Your task to perform on an android device: toggle improve location accuracy Image 0: 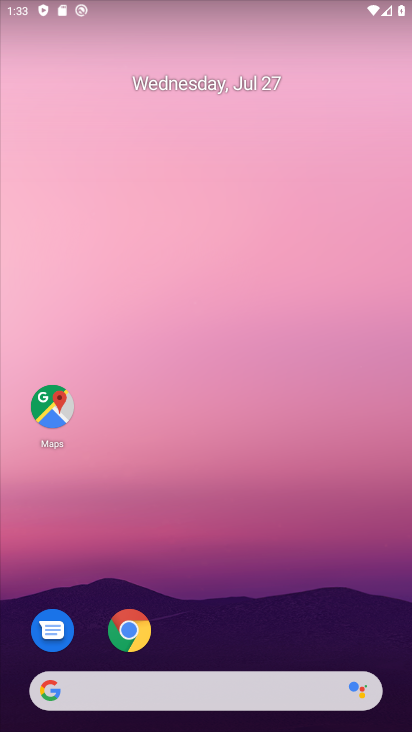
Step 0: drag from (384, 635) to (352, 112)
Your task to perform on an android device: toggle improve location accuracy Image 1: 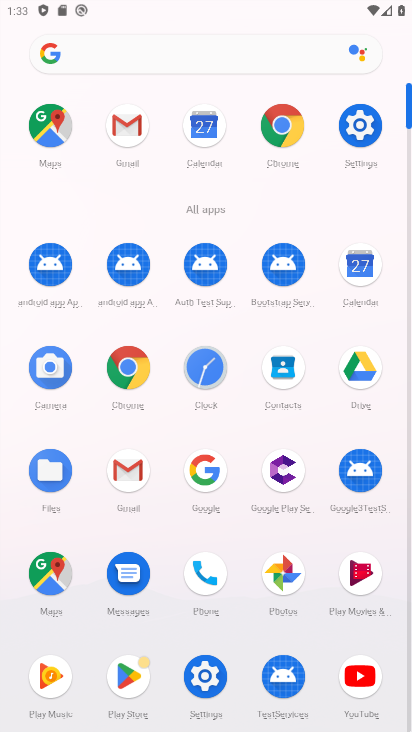
Step 1: click (204, 677)
Your task to perform on an android device: toggle improve location accuracy Image 2: 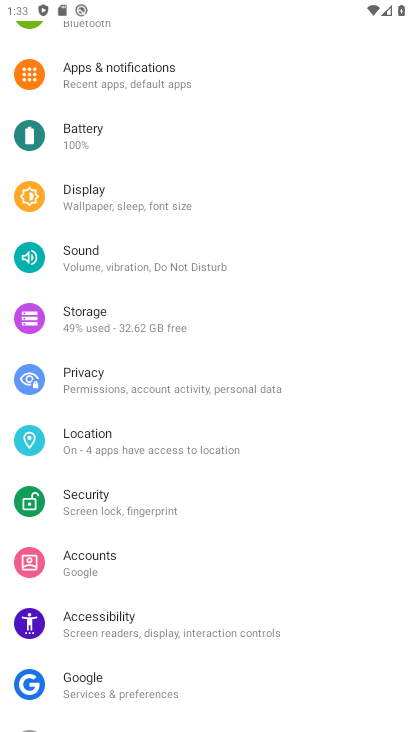
Step 2: click (95, 437)
Your task to perform on an android device: toggle improve location accuracy Image 3: 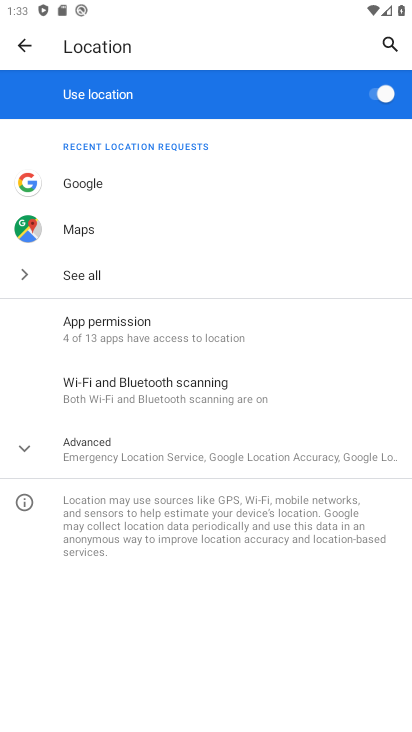
Step 3: click (14, 446)
Your task to perform on an android device: toggle improve location accuracy Image 4: 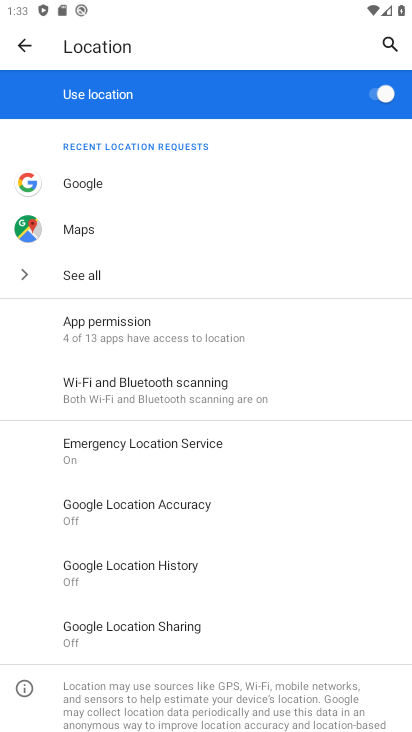
Step 4: click (129, 505)
Your task to perform on an android device: toggle improve location accuracy Image 5: 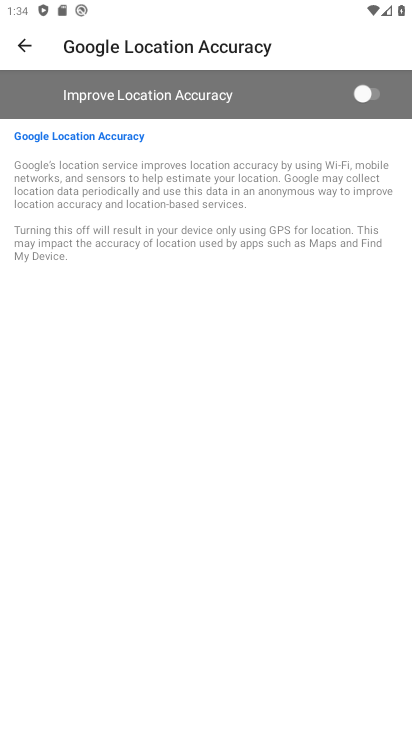
Step 5: click (373, 95)
Your task to perform on an android device: toggle improve location accuracy Image 6: 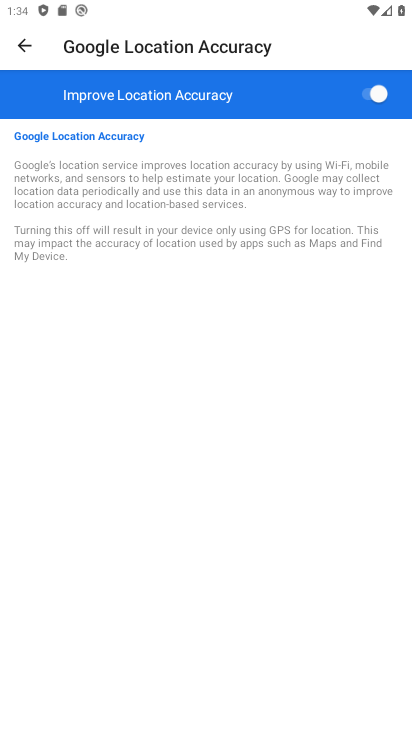
Step 6: task complete